Your task to perform on an android device: refresh tabs in the chrome app Image 0: 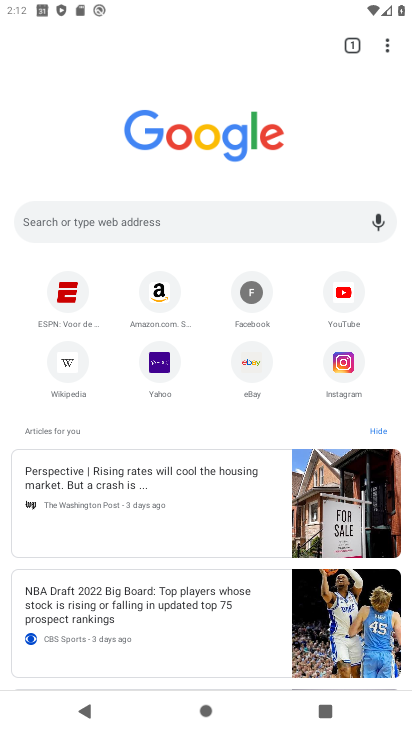
Step 0: press home button
Your task to perform on an android device: refresh tabs in the chrome app Image 1: 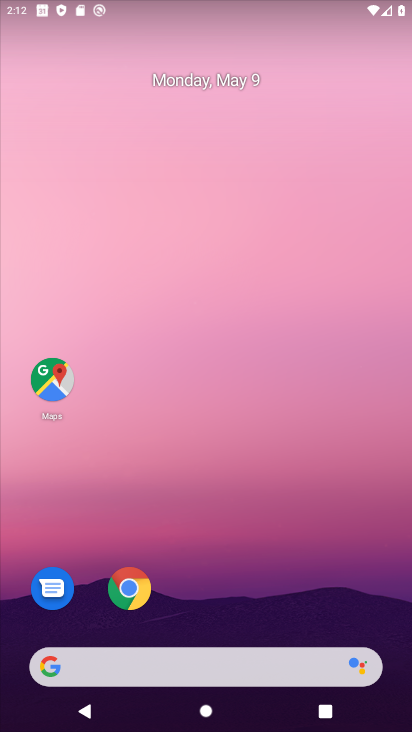
Step 1: drag from (335, 590) to (309, 111)
Your task to perform on an android device: refresh tabs in the chrome app Image 2: 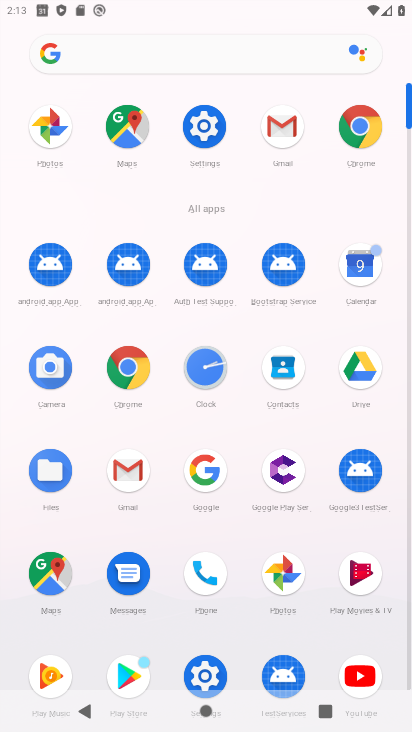
Step 2: click (354, 134)
Your task to perform on an android device: refresh tabs in the chrome app Image 3: 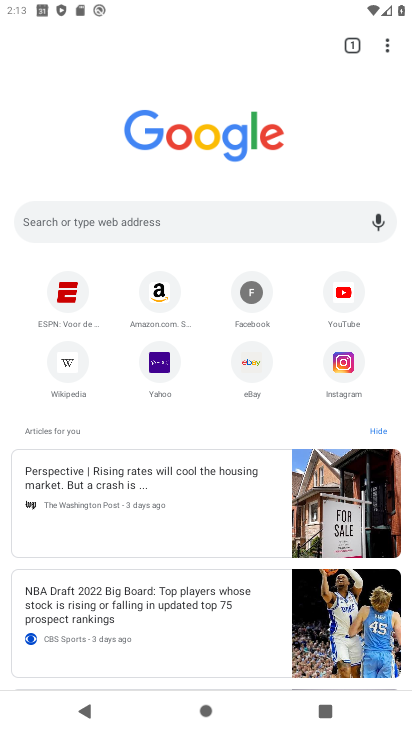
Step 3: click (387, 41)
Your task to perform on an android device: refresh tabs in the chrome app Image 4: 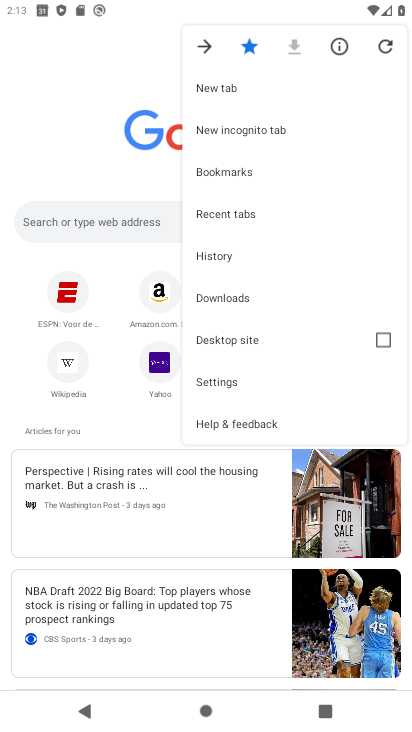
Step 4: click (385, 46)
Your task to perform on an android device: refresh tabs in the chrome app Image 5: 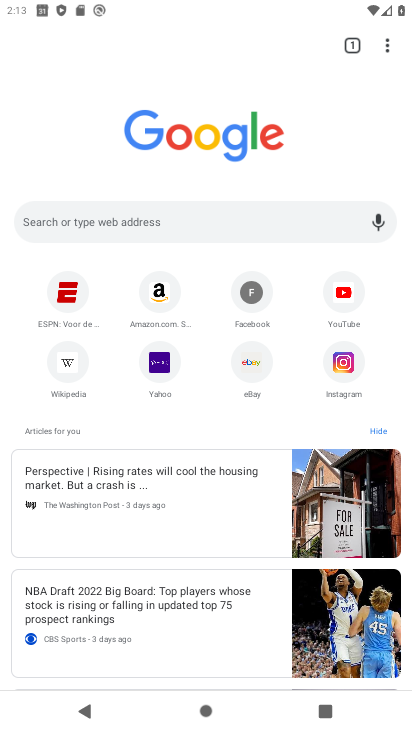
Step 5: task complete